Your task to perform on an android device: turn on translation in the chrome app Image 0: 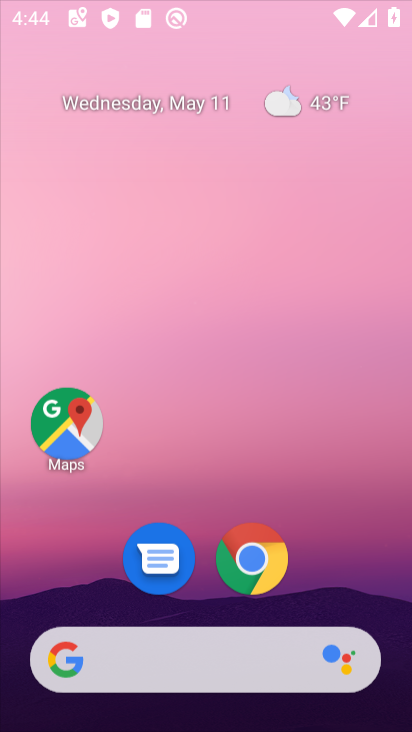
Step 0: click (187, 291)
Your task to perform on an android device: turn on translation in the chrome app Image 1: 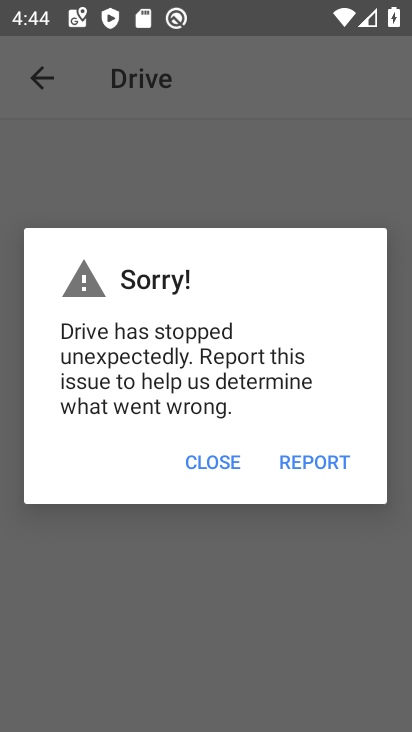
Step 1: press home button
Your task to perform on an android device: turn on translation in the chrome app Image 2: 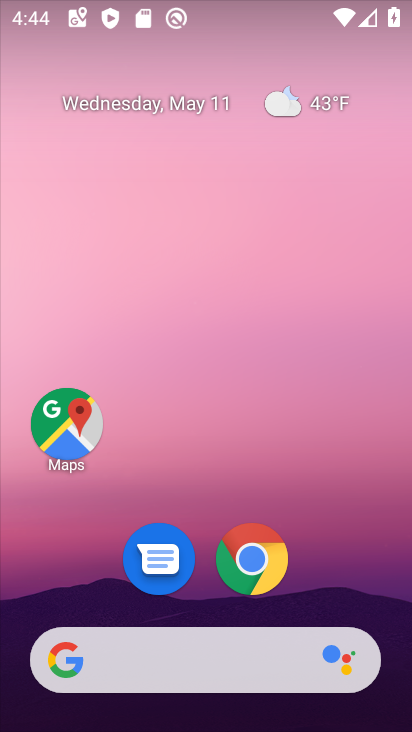
Step 2: click (244, 567)
Your task to perform on an android device: turn on translation in the chrome app Image 3: 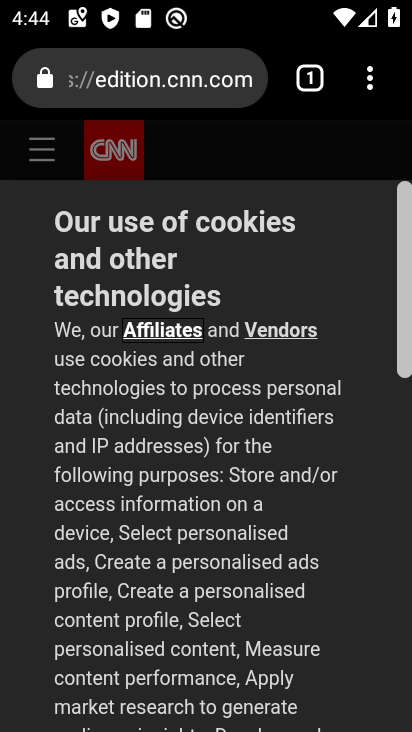
Step 3: click (371, 79)
Your task to perform on an android device: turn on translation in the chrome app Image 4: 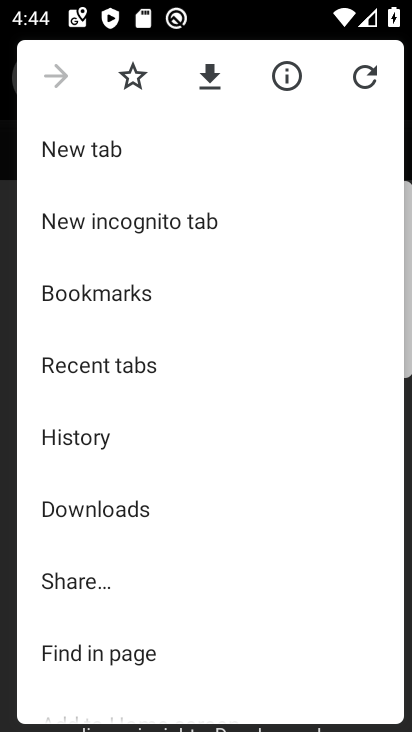
Step 4: drag from (95, 594) to (113, 262)
Your task to perform on an android device: turn on translation in the chrome app Image 5: 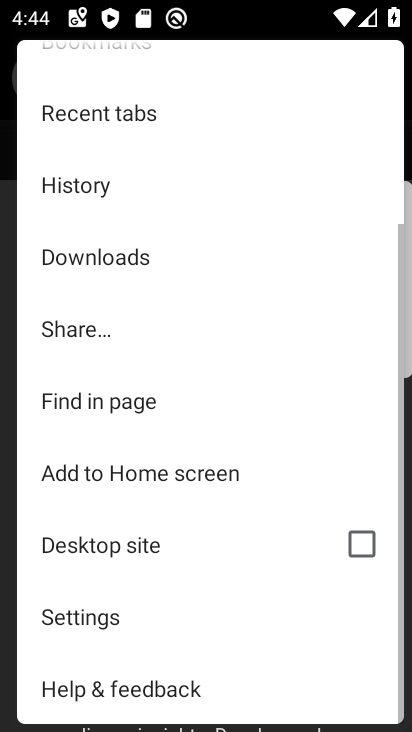
Step 5: click (78, 622)
Your task to perform on an android device: turn on translation in the chrome app Image 6: 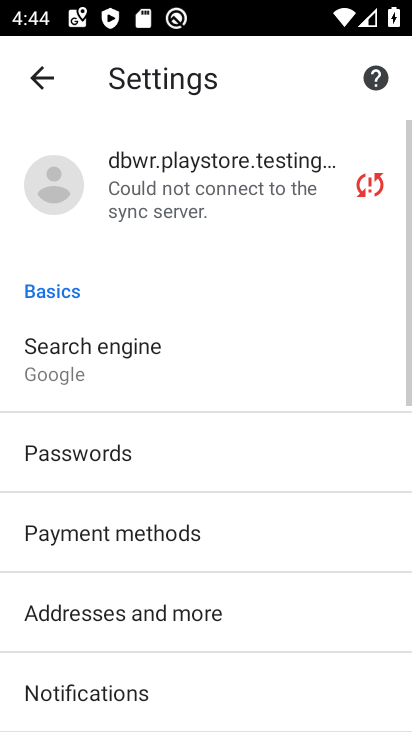
Step 6: drag from (146, 640) to (149, 344)
Your task to perform on an android device: turn on translation in the chrome app Image 7: 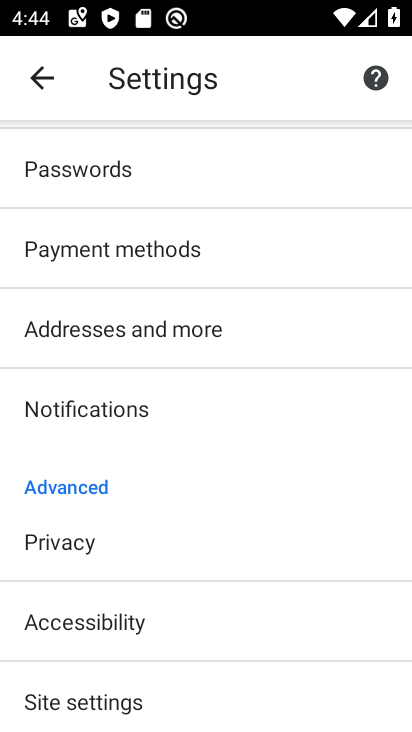
Step 7: drag from (151, 633) to (146, 398)
Your task to perform on an android device: turn on translation in the chrome app Image 8: 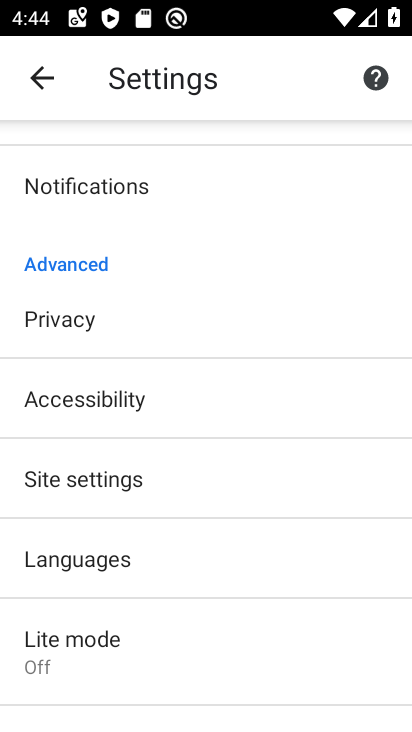
Step 8: click (86, 565)
Your task to perform on an android device: turn on translation in the chrome app Image 9: 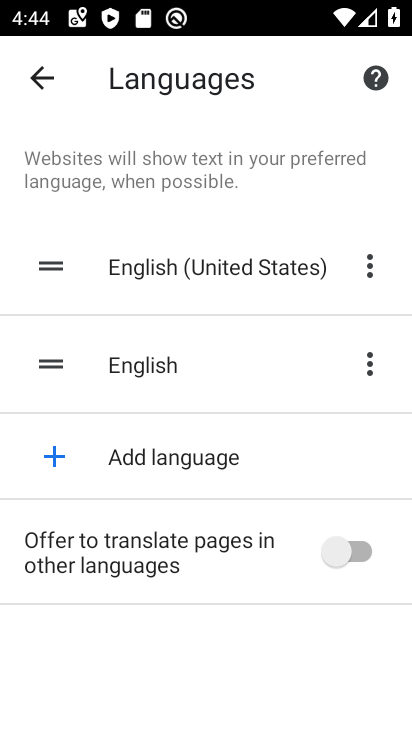
Step 9: click (362, 563)
Your task to perform on an android device: turn on translation in the chrome app Image 10: 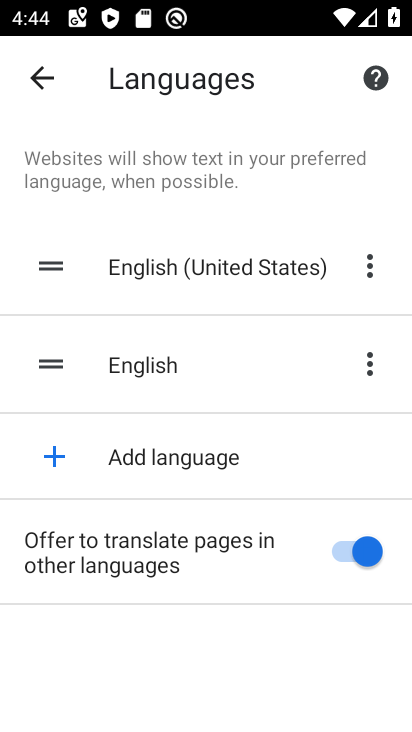
Step 10: task complete